Your task to perform on an android device: What is the recent news? Image 0: 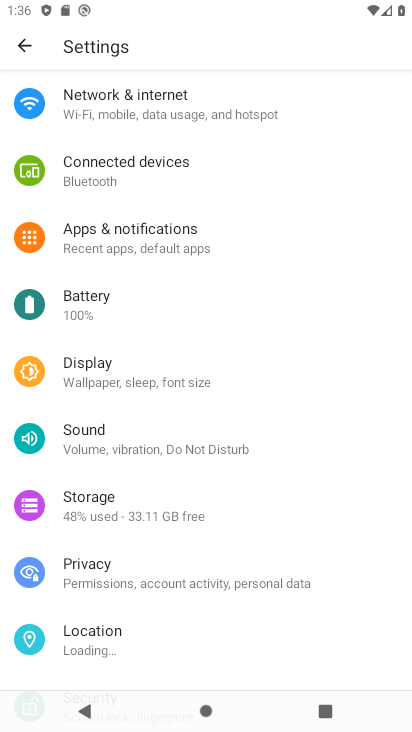
Step 0: press home button
Your task to perform on an android device: What is the recent news? Image 1: 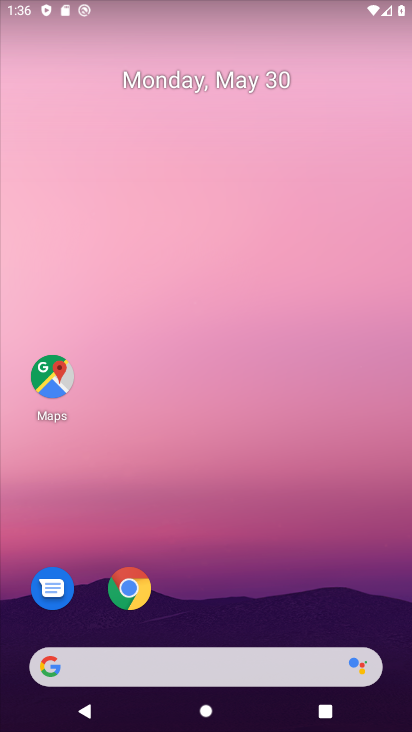
Step 1: task complete